Your task to perform on an android device: Open accessibility settings Image 0: 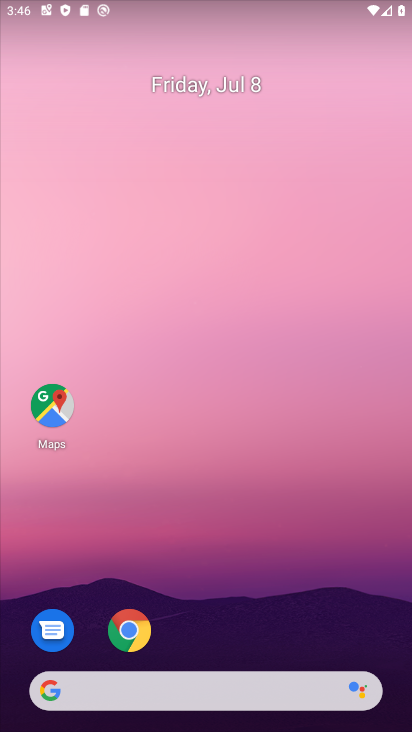
Step 0: drag from (251, 642) to (223, 194)
Your task to perform on an android device: Open accessibility settings Image 1: 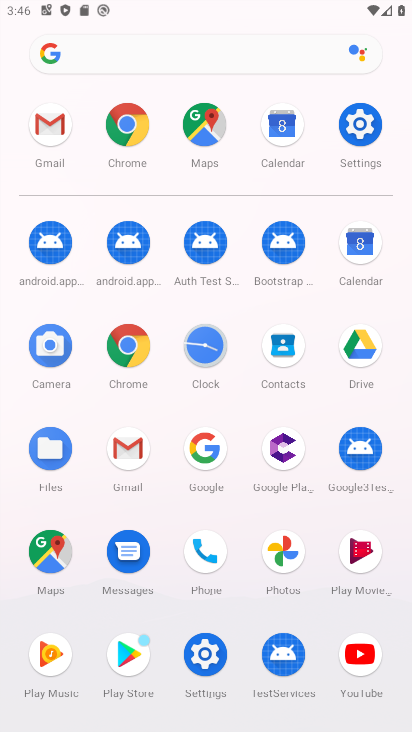
Step 1: click (345, 155)
Your task to perform on an android device: Open accessibility settings Image 2: 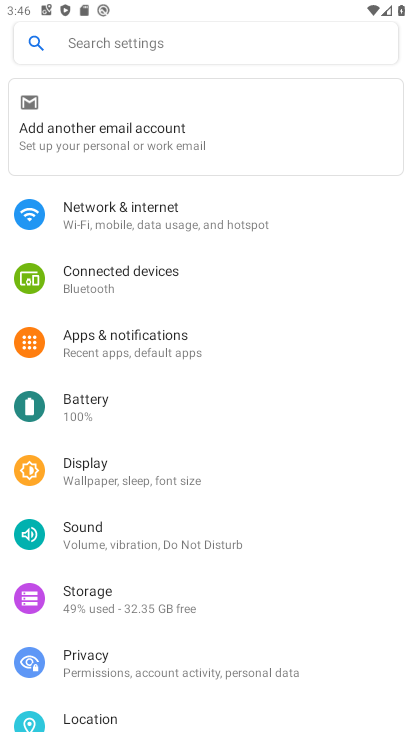
Step 2: drag from (193, 644) to (216, 288)
Your task to perform on an android device: Open accessibility settings Image 3: 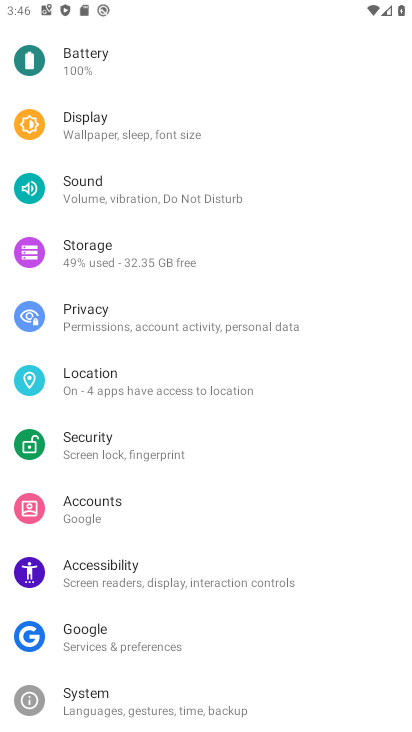
Step 3: drag from (230, 641) to (251, 440)
Your task to perform on an android device: Open accessibility settings Image 4: 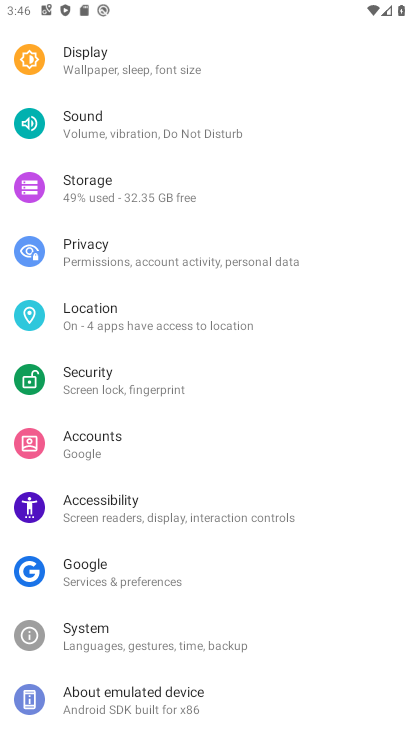
Step 4: click (228, 527)
Your task to perform on an android device: Open accessibility settings Image 5: 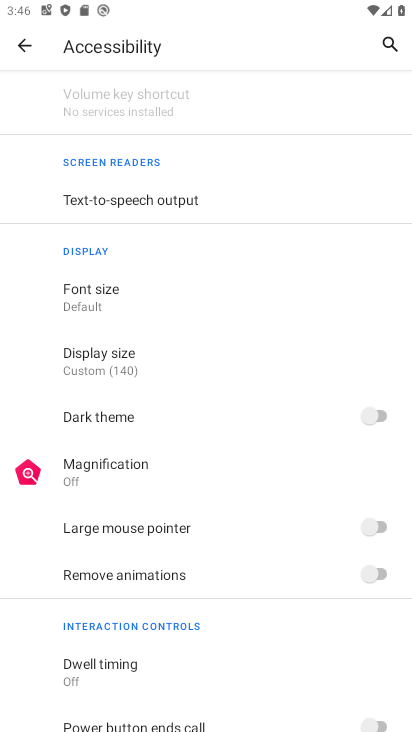
Step 5: task complete